Your task to perform on an android device: Is it going to rain tomorrow? Image 0: 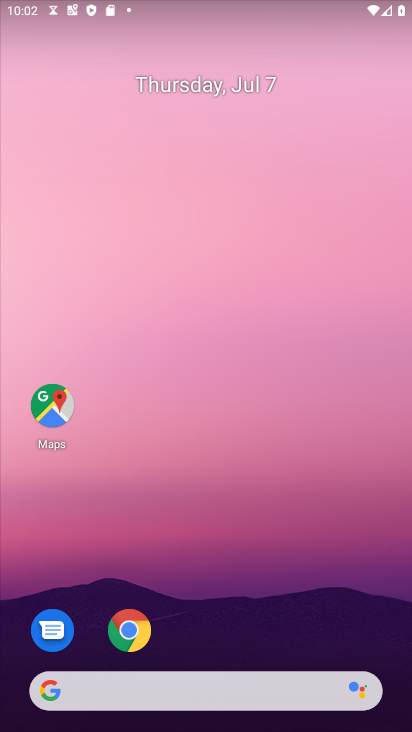
Step 0: drag from (229, 671) to (188, 266)
Your task to perform on an android device: Is it going to rain tomorrow? Image 1: 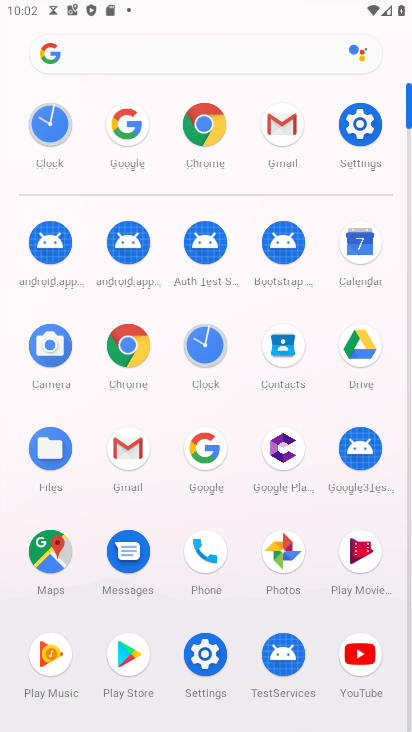
Step 1: click (120, 122)
Your task to perform on an android device: Is it going to rain tomorrow? Image 2: 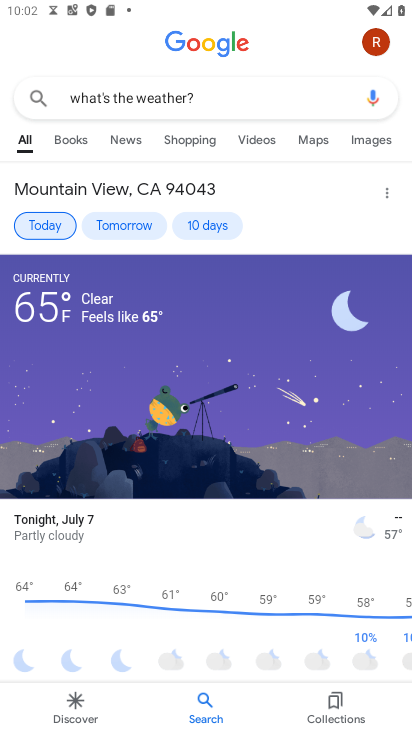
Step 2: click (170, 99)
Your task to perform on an android device: Is it going to rain tomorrow? Image 3: 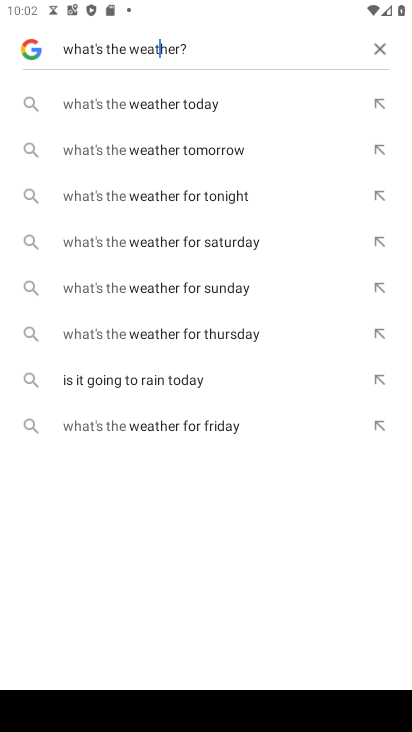
Step 3: click (387, 47)
Your task to perform on an android device: Is it going to rain tomorrow? Image 4: 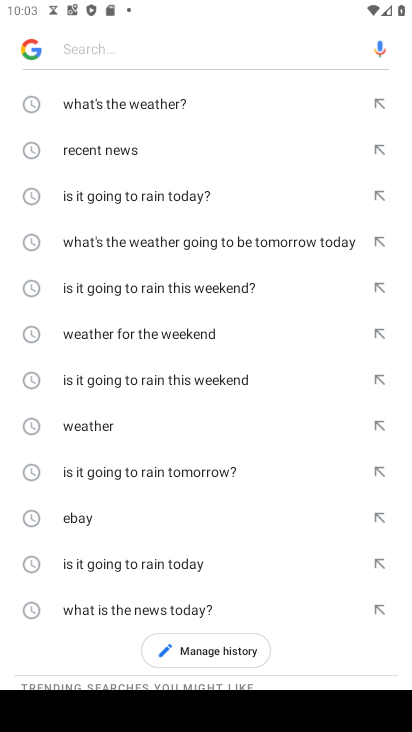
Step 4: click (121, 473)
Your task to perform on an android device: Is it going to rain tomorrow? Image 5: 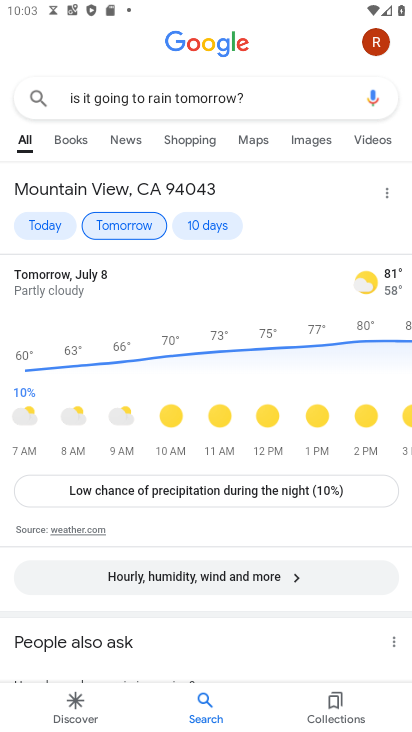
Step 5: task complete